Your task to perform on an android device: Open Google Image 0: 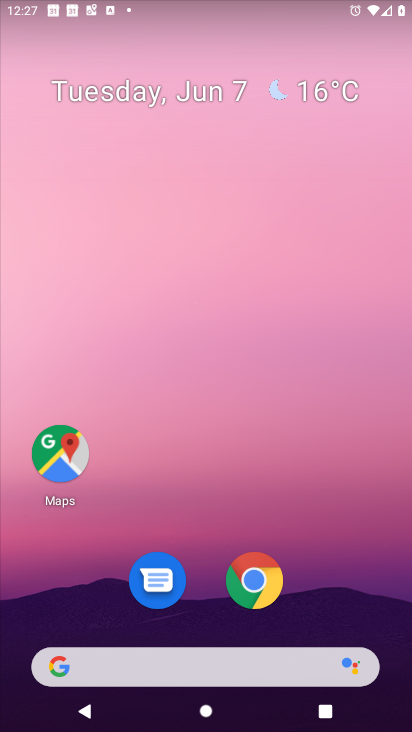
Step 0: drag from (367, 603) to (309, 38)
Your task to perform on an android device: Open Google Image 1: 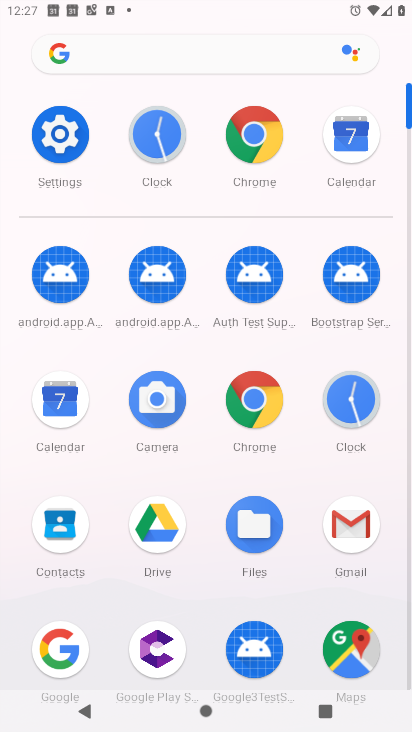
Step 1: click (74, 651)
Your task to perform on an android device: Open Google Image 2: 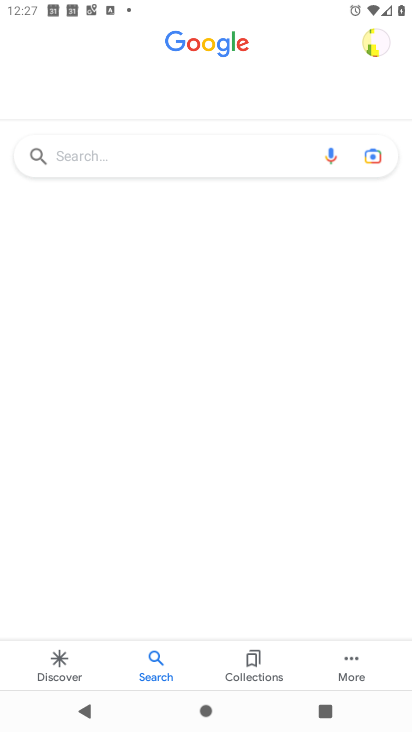
Step 2: task complete